Your task to perform on an android device: turn smart compose on in the gmail app Image 0: 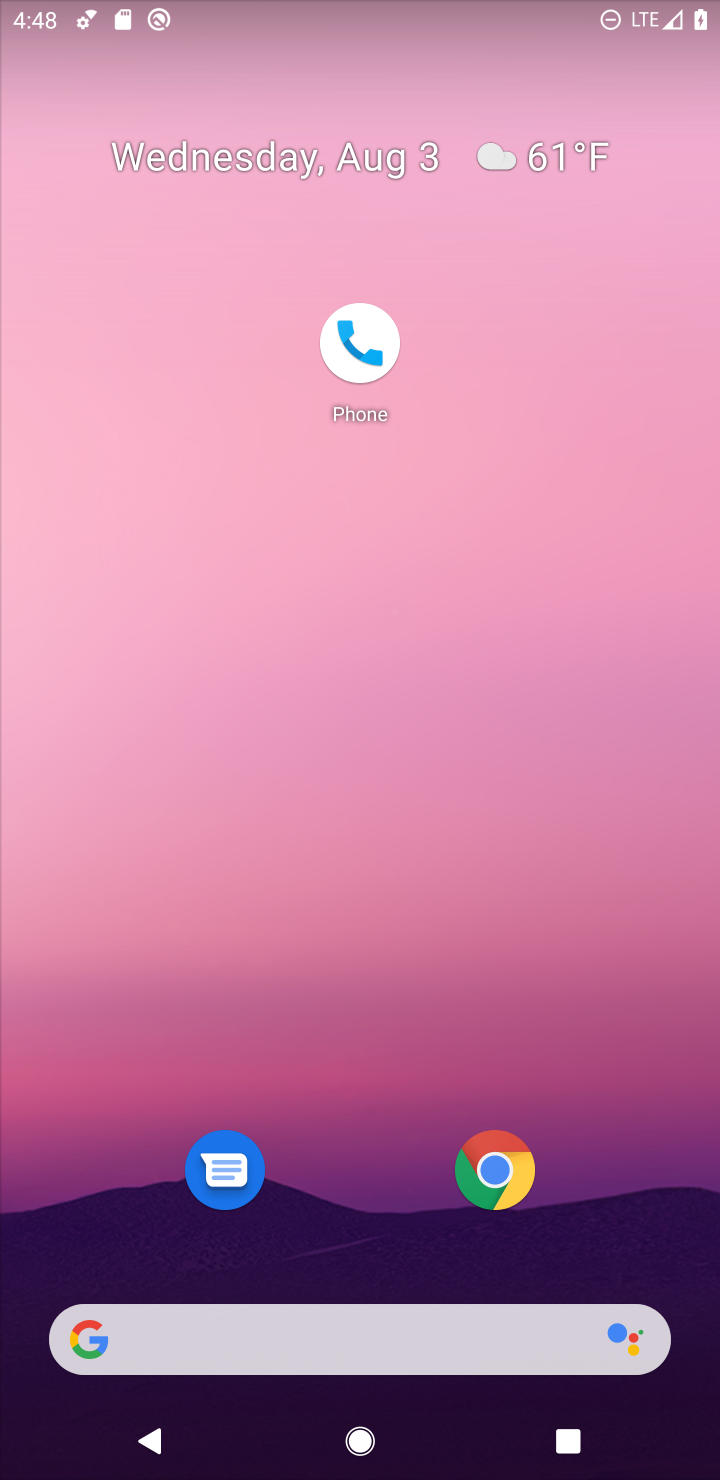
Step 0: press back button
Your task to perform on an android device: turn smart compose on in the gmail app Image 1: 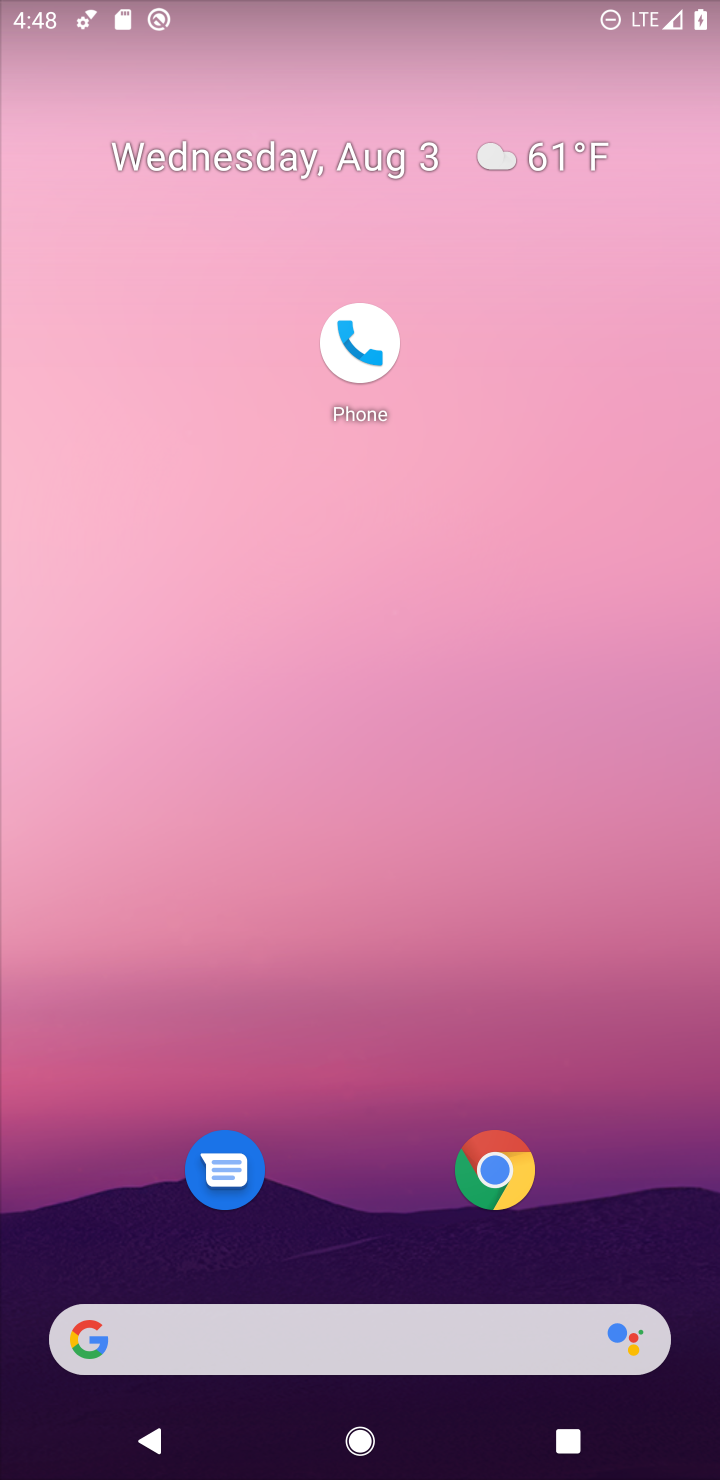
Step 1: click (419, 25)
Your task to perform on an android device: turn smart compose on in the gmail app Image 2: 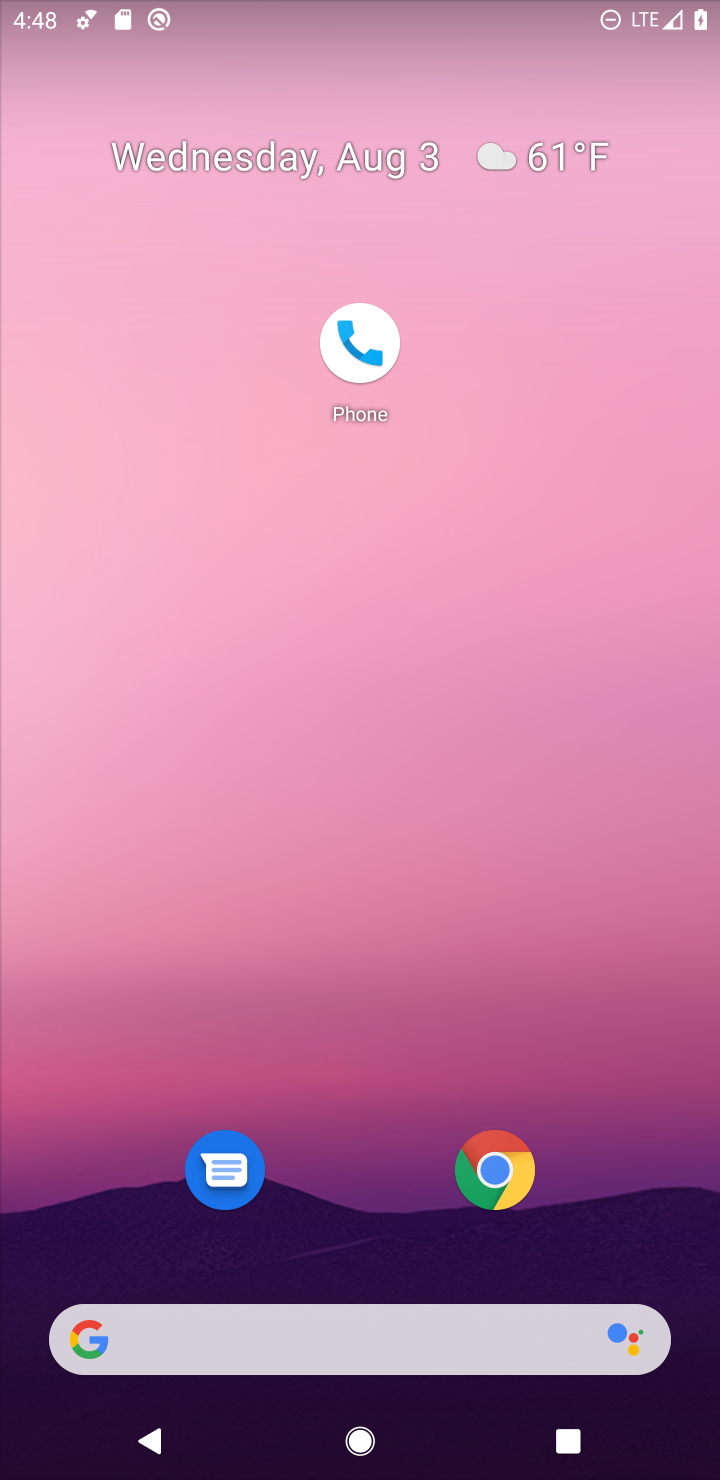
Step 2: click (445, 281)
Your task to perform on an android device: turn smart compose on in the gmail app Image 3: 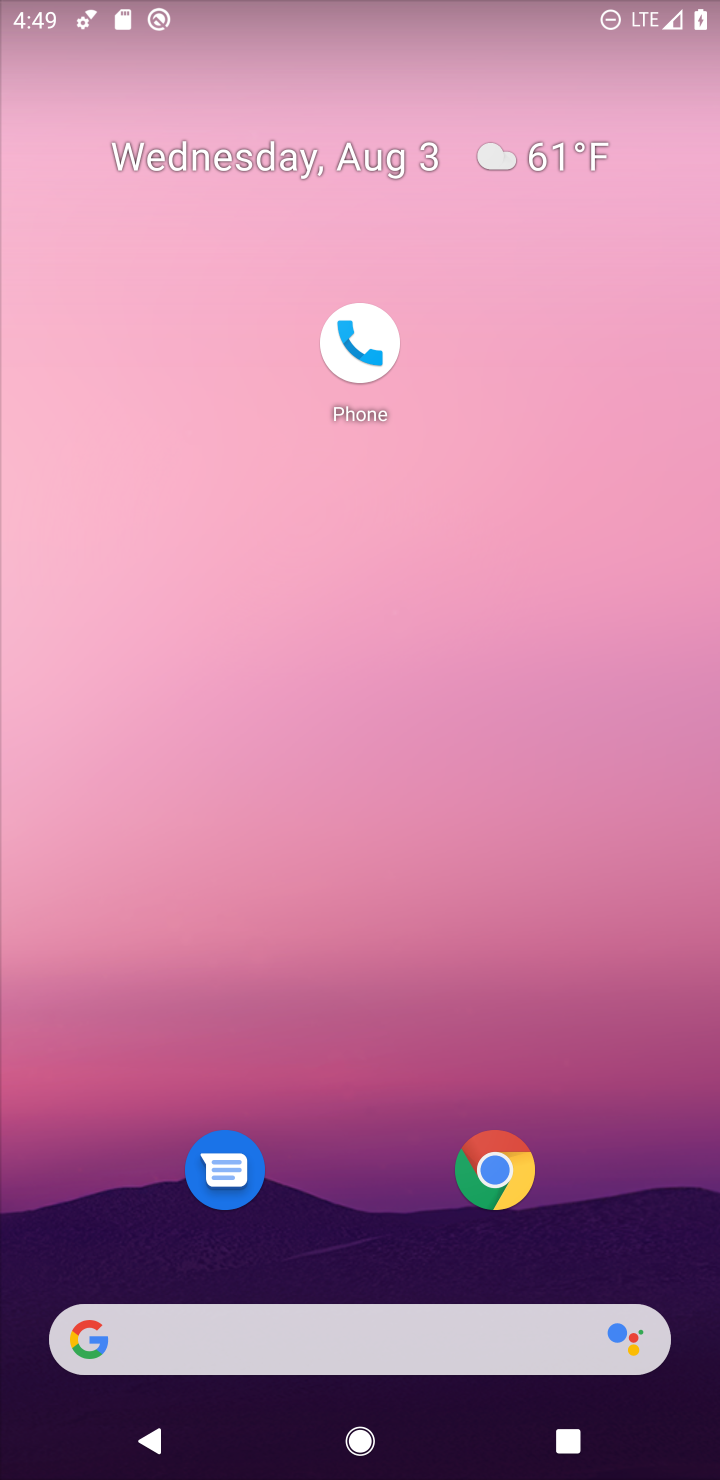
Step 3: drag from (242, 535) to (244, 280)
Your task to perform on an android device: turn smart compose on in the gmail app Image 4: 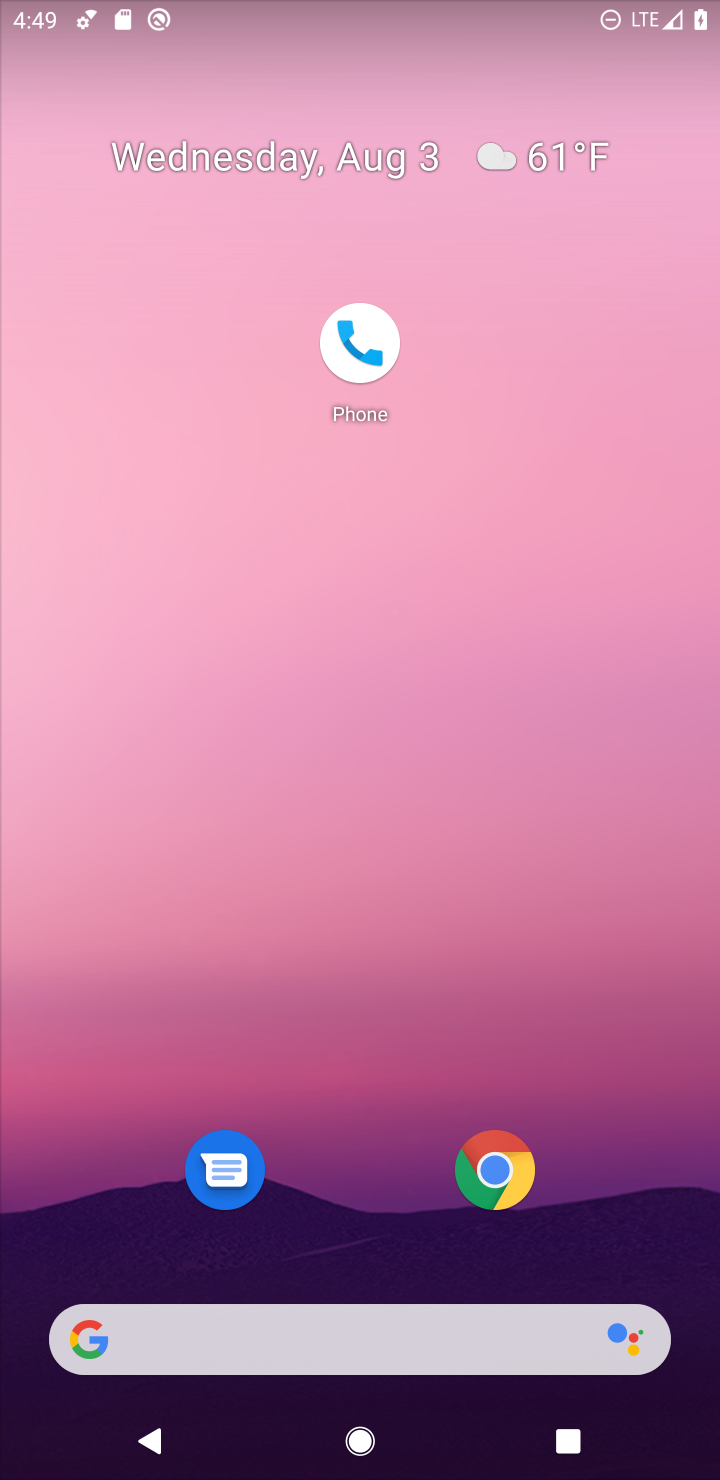
Step 4: click (334, 12)
Your task to perform on an android device: turn smart compose on in the gmail app Image 5: 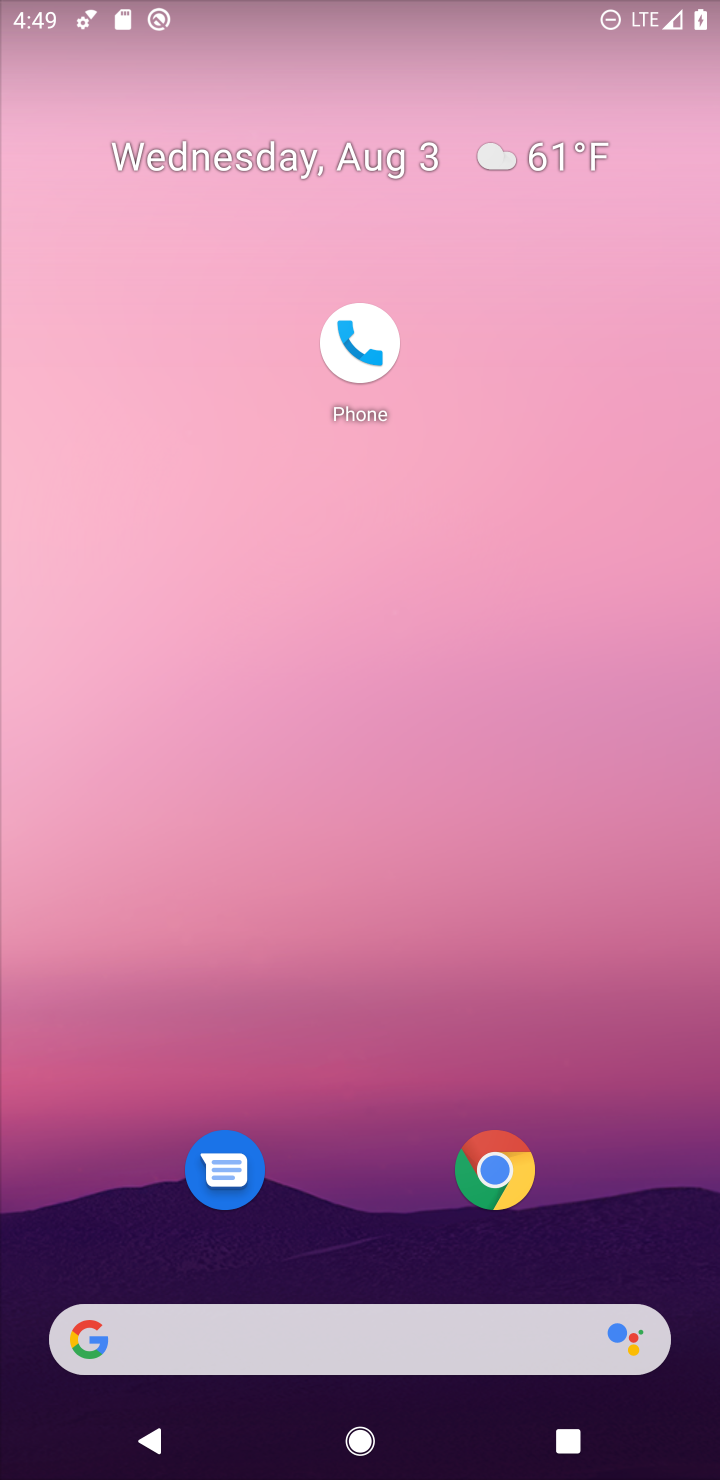
Step 5: click (339, 544)
Your task to perform on an android device: turn smart compose on in the gmail app Image 6: 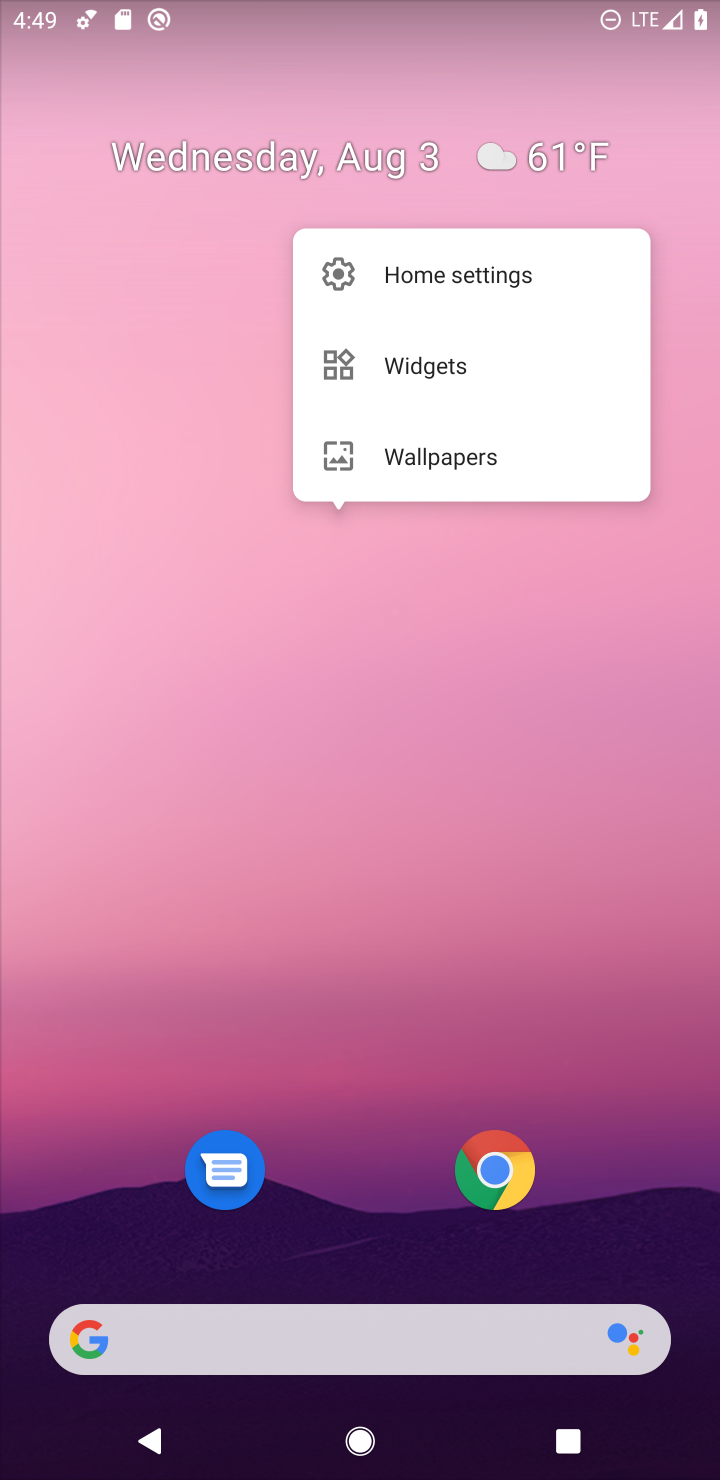
Step 6: drag from (303, 1052) to (369, 76)
Your task to perform on an android device: turn smart compose on in the gmail app Image 7: 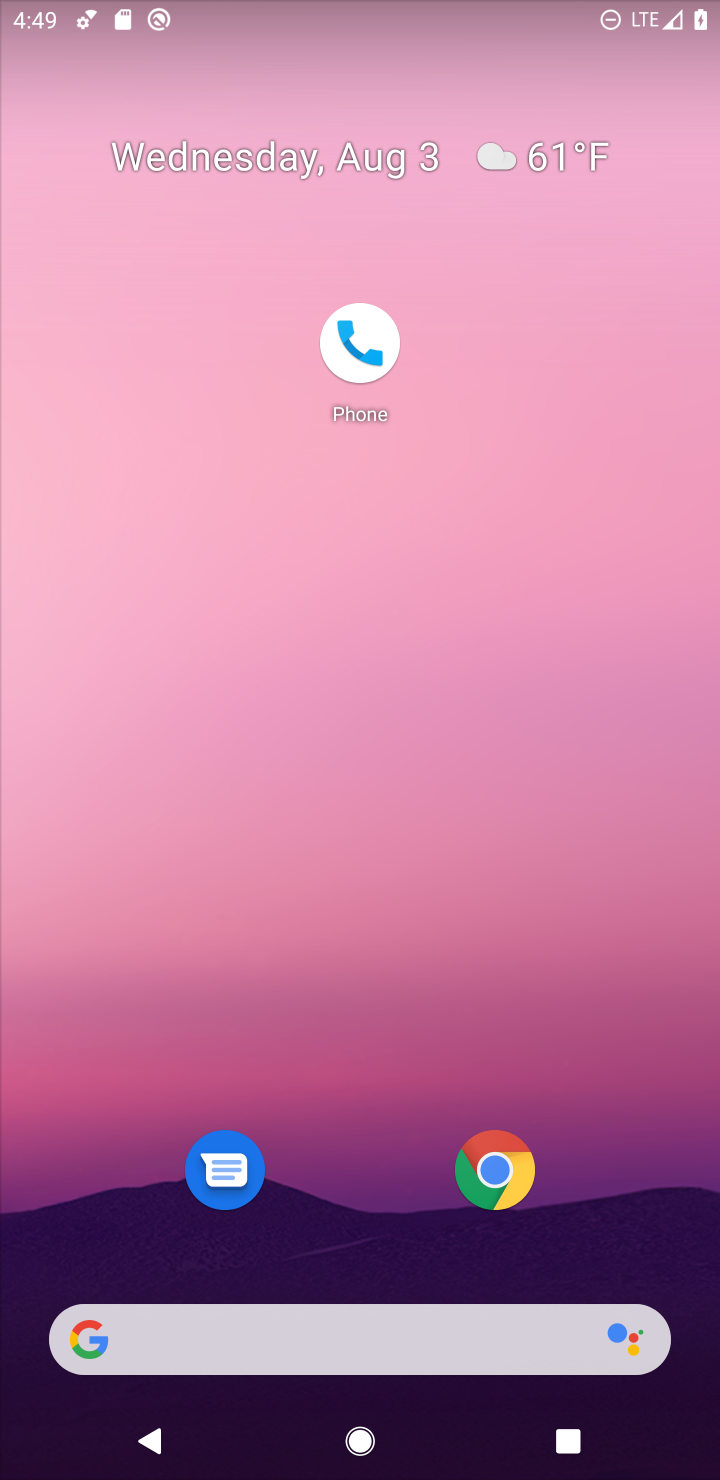
Step 7: drag from (356, 1189) to (384, 454)
Your task to perform on an android device: turn smart compose on in the gmail app Image 8: 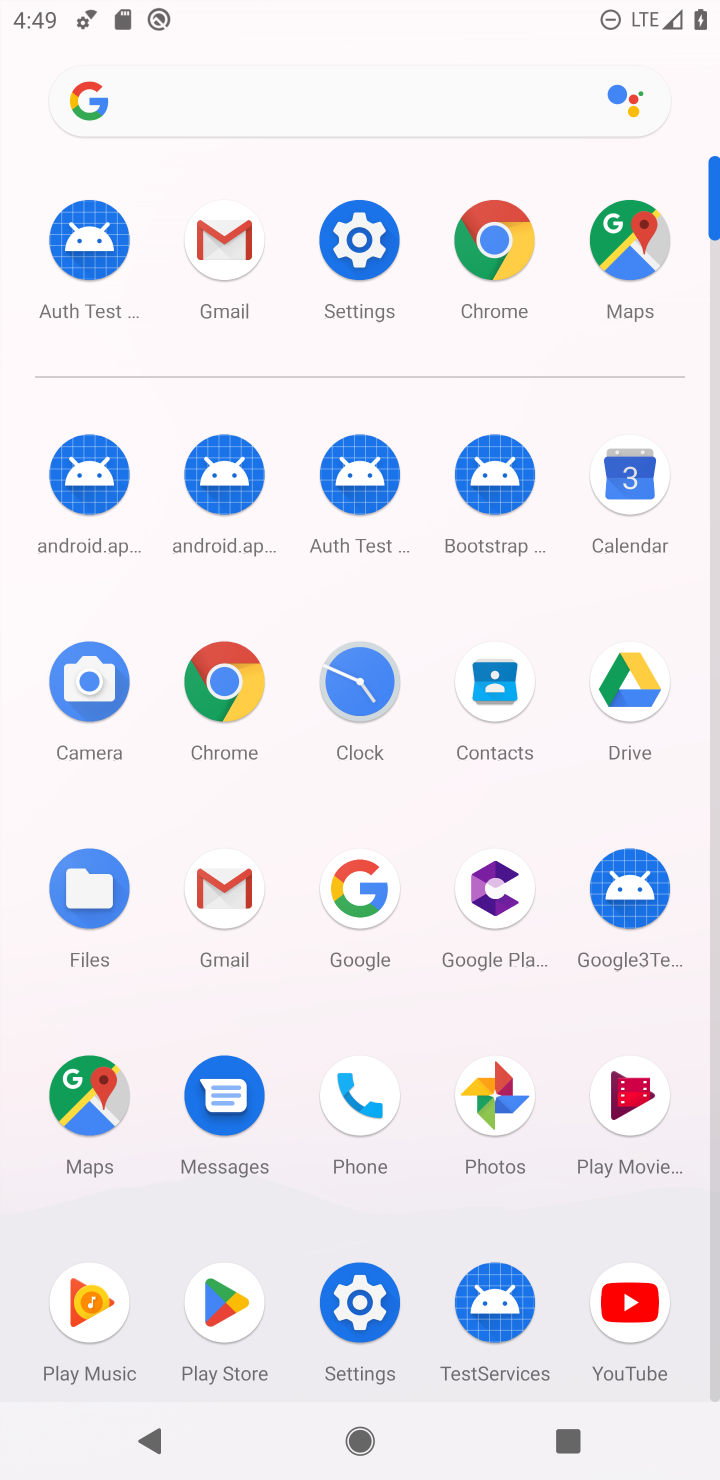
Step 8: click (227, 269)
Your task to perform on an android device: turn smart compose on in the gmail app Image 9: 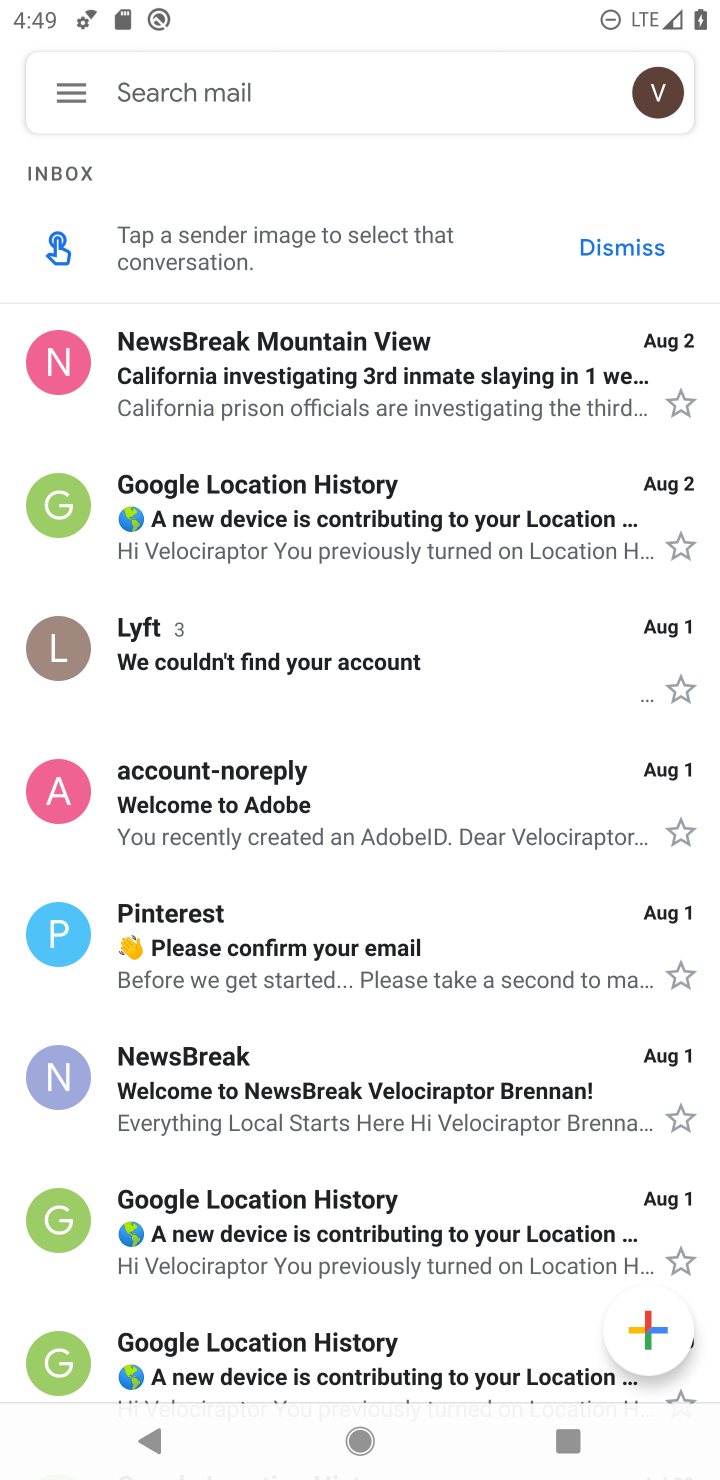
Step 9: click (72, 93)
Your task to perform on an android device: turn smart compose on in the gmail app Image 10: 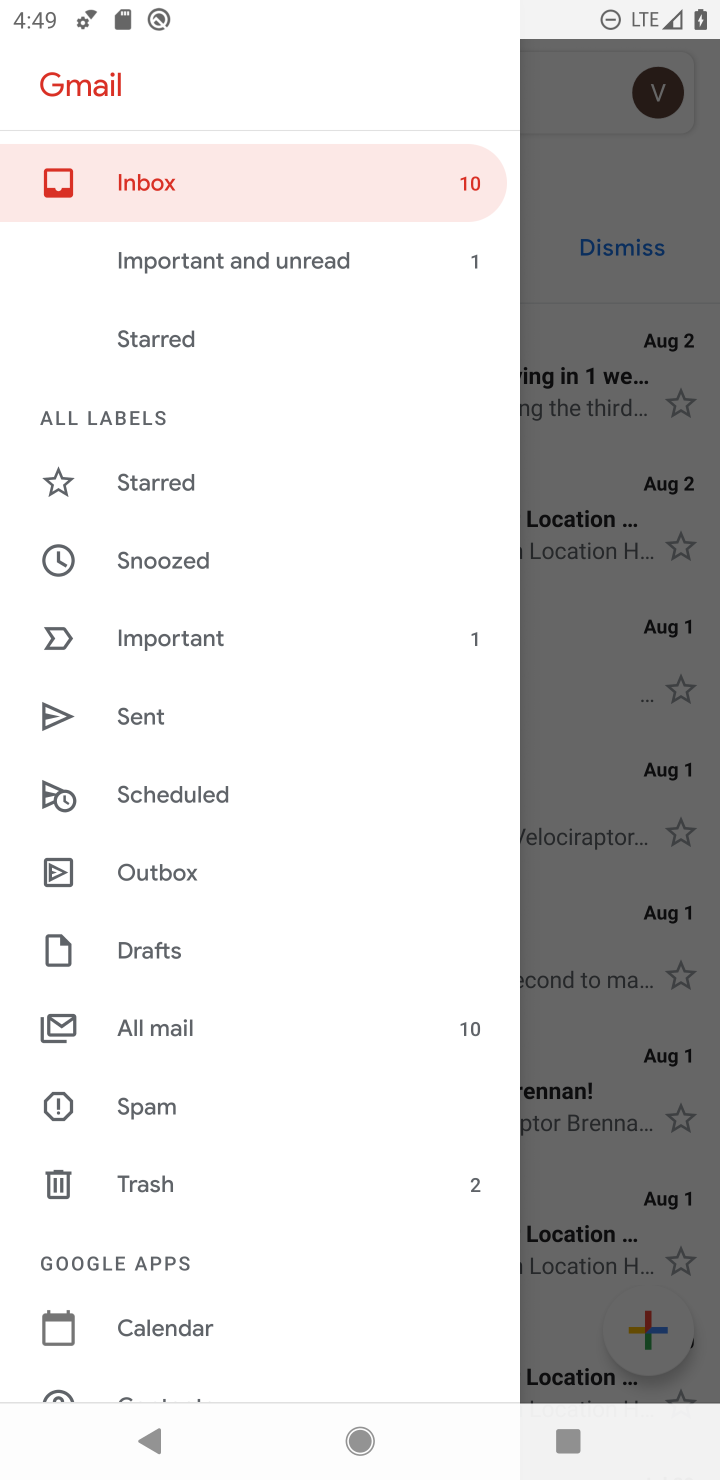
Step 10: drag from (181, 1216) to (222, 623)
Your task to perform on an android device: turn smart compose on in the gmail app Image 11: 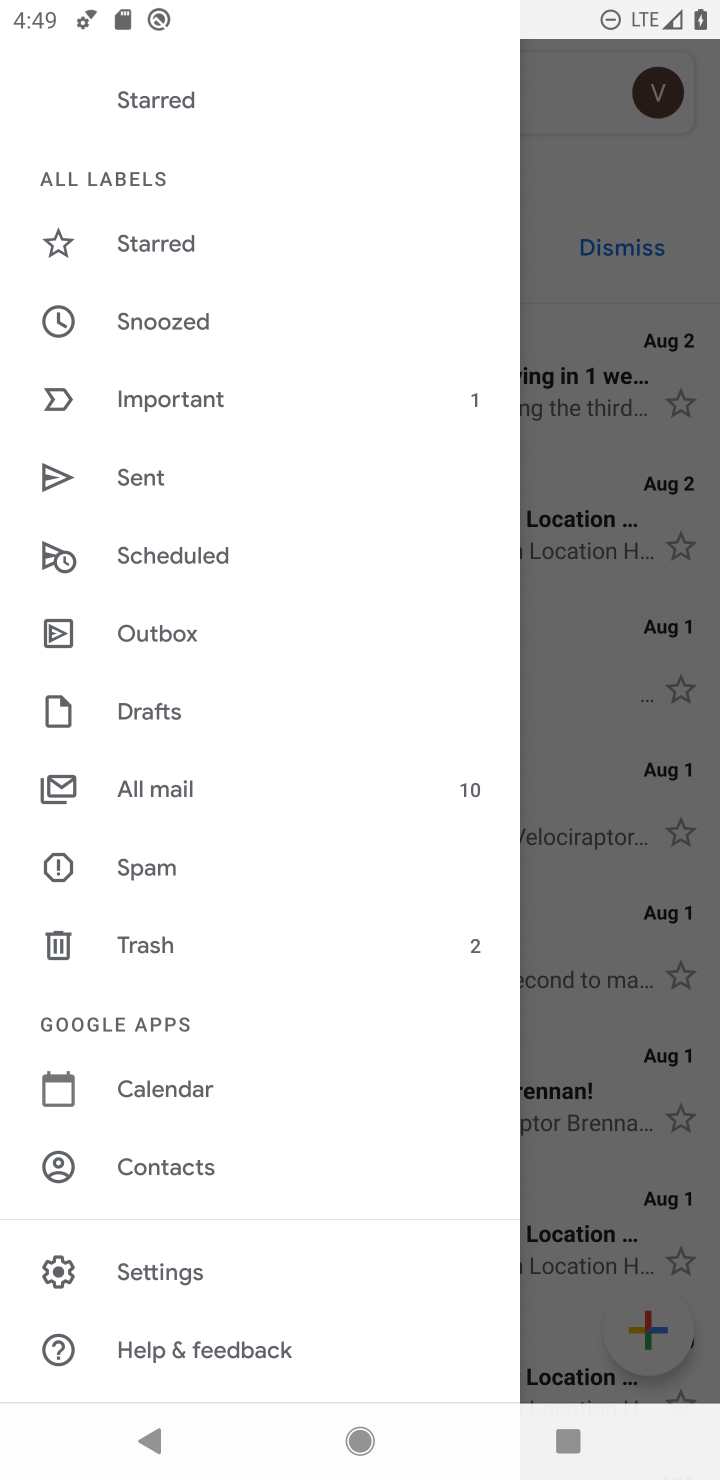
Step 11: click (156, 1261)
Your task to perform on an android device: turn smart compose on in the gmail app Image 12: 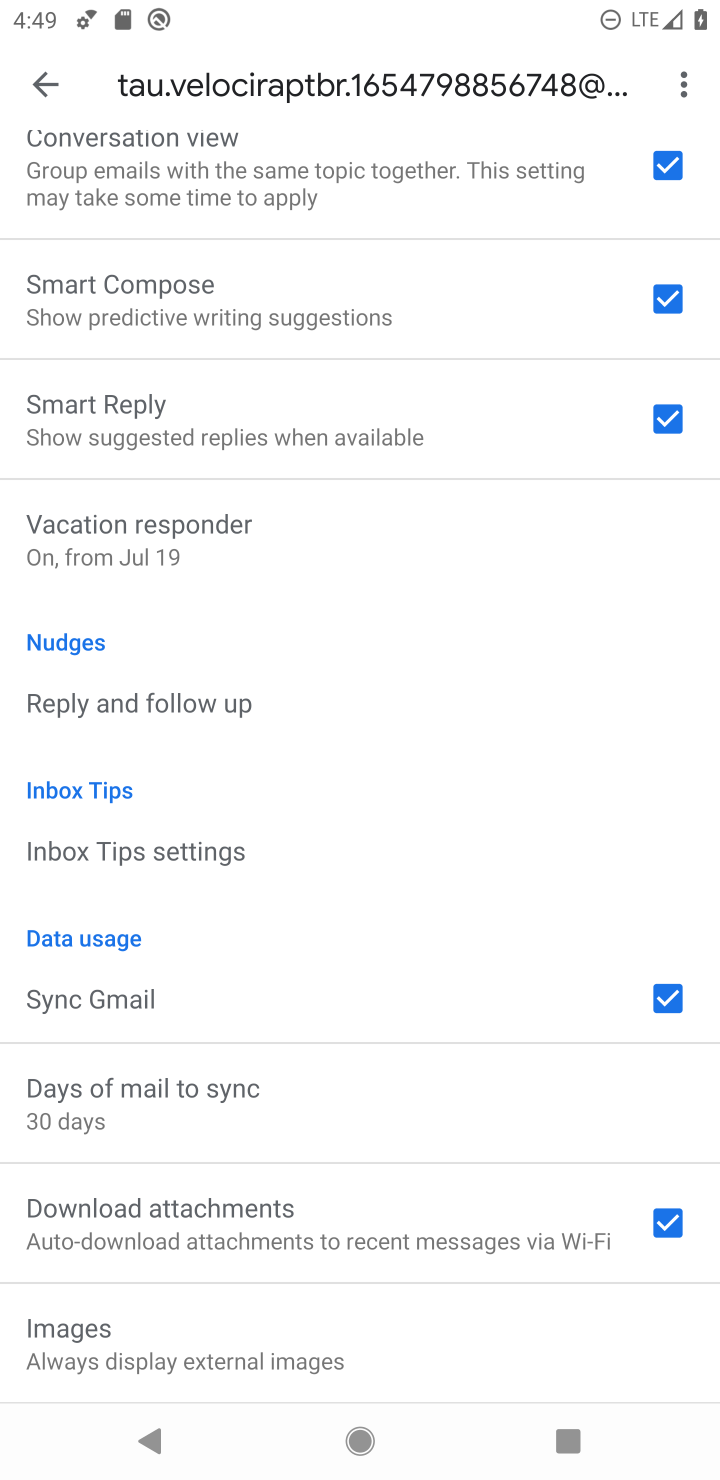
Step 12: task complete